Your task to perform on an android device: What's the weather going to be this weekend? Image 0: 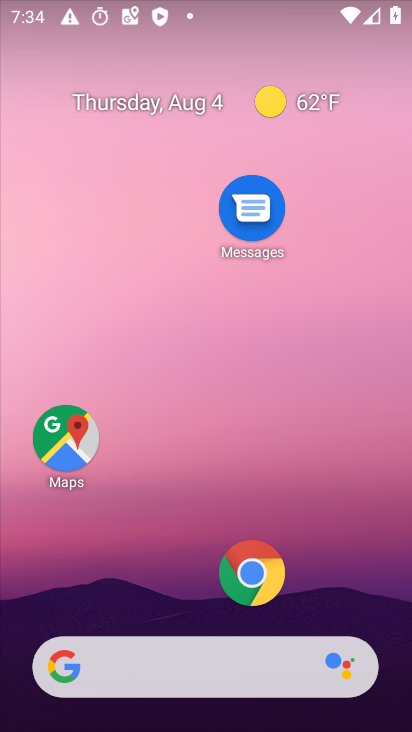
Step 0: click (48, 678)
Your task to perform on an android device: What's the weather going to be this weekend? Image 1: 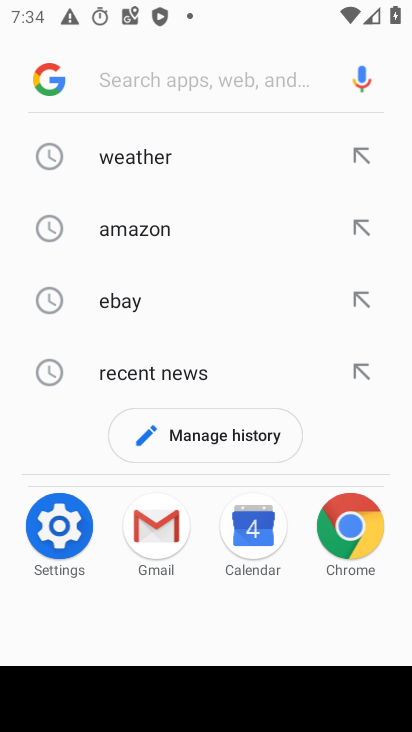
Step 1: type "weather going to be this weekend?"
Your task to perform on an android device: What's the weather going to be this weekend? Image 2: 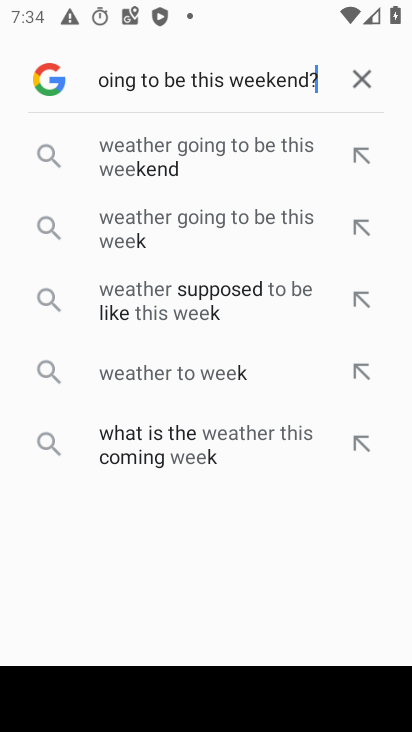
Step 2: press enter
Your task to perform on an android device: What's the weather going to be this weekend? Image 3: 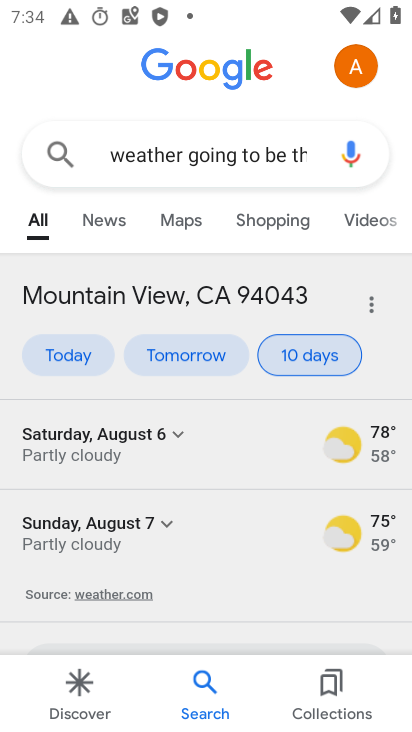
Step 3: task complete